Your task to perform on an android device: Open internet settings Image 0: 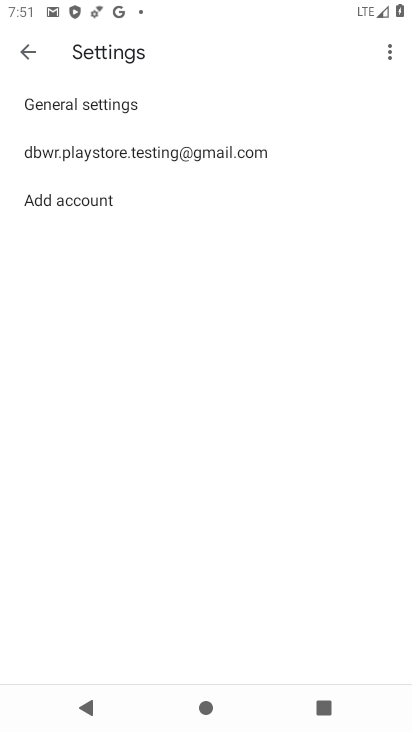
Step 0: press home button
Your task to perform on an android device: Open internet settings Image 1: 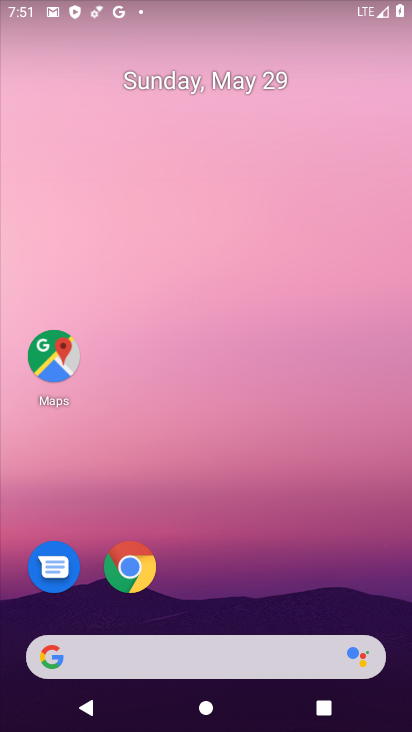
Step 1: drag from (166, 599) to (266, 253)
Your task to perform on an android device: Open internet settings Image 2: 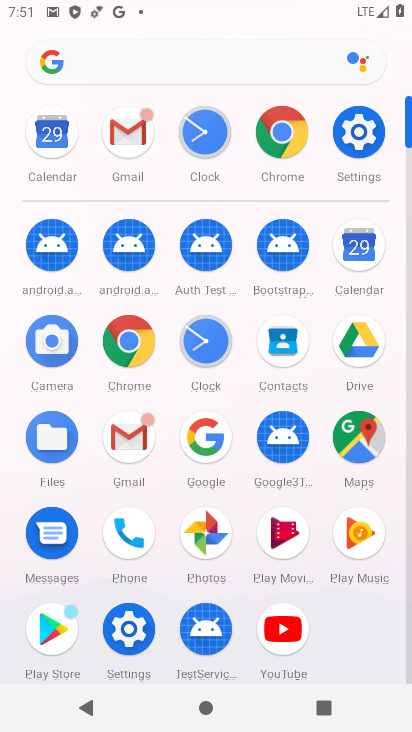
Step 2: click (365, 131)
Your task to perform on an android device: Open internet settings Image 3: 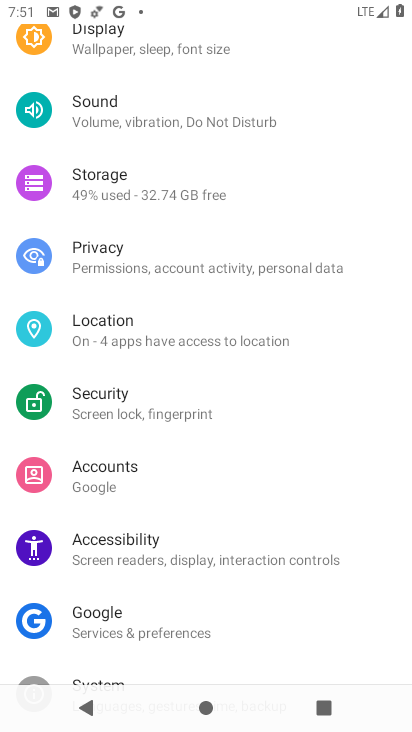
Step 3: drag from (127, 130) to (58, 675)
Your task to perform on an android device: Open internet settings Image 4: 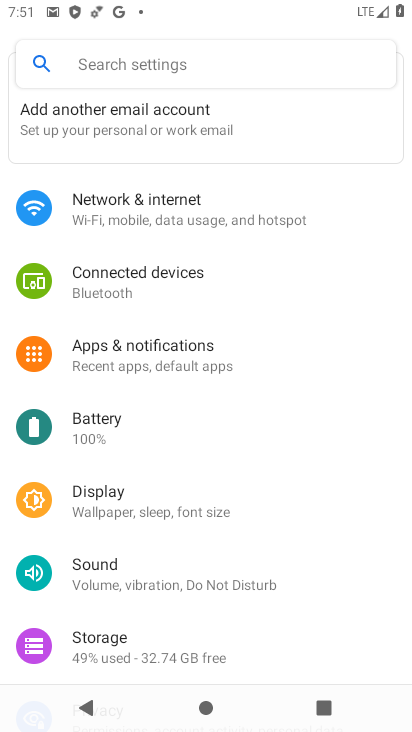
Step 4: click (167, 200)
Your task to perform on an android device: Open internet settings Image 5: 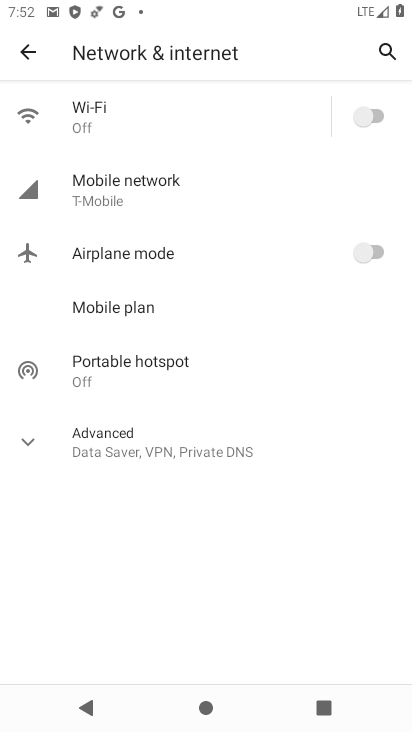
Step 5: task complete